Your task to perform on an android device: Search for the best value 4K TV on Best Buy Image 0: 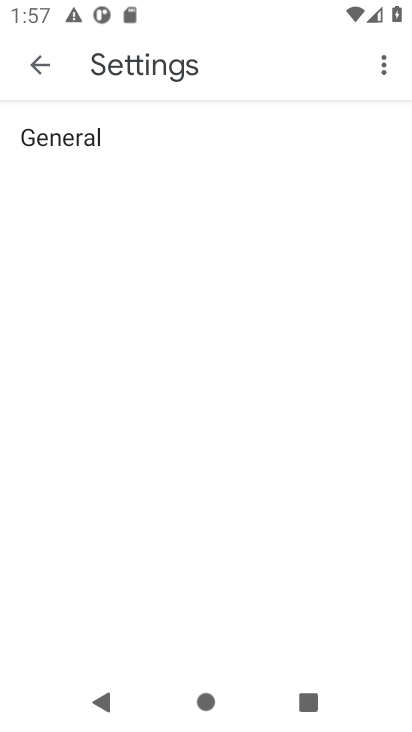
Step 0: press home button
Your task to perform on an android device: Search for the best value 4K TV on Best Buy Image 1: 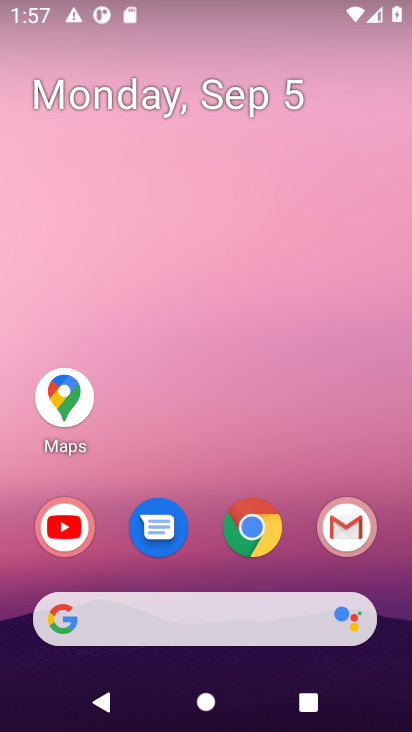
Step 1: click (264, 523)
Your task to perform on an android device: Search for the best value 4K TV on Best Buy Image 2: 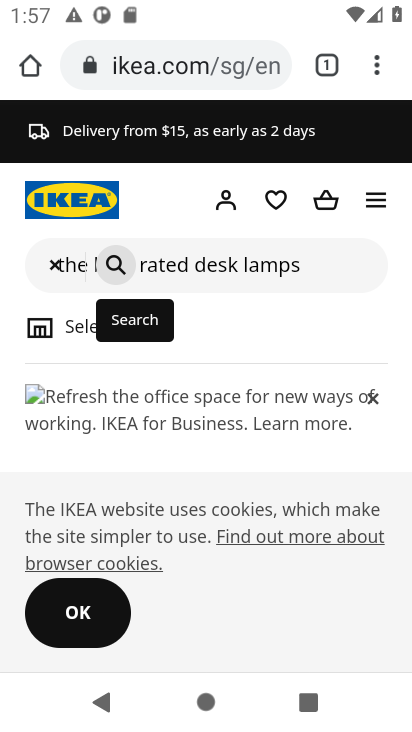
Step 2: click (182, 64)
Your task to perform on an android device: Search for the best value 4K TV on Best Buy Image 3: 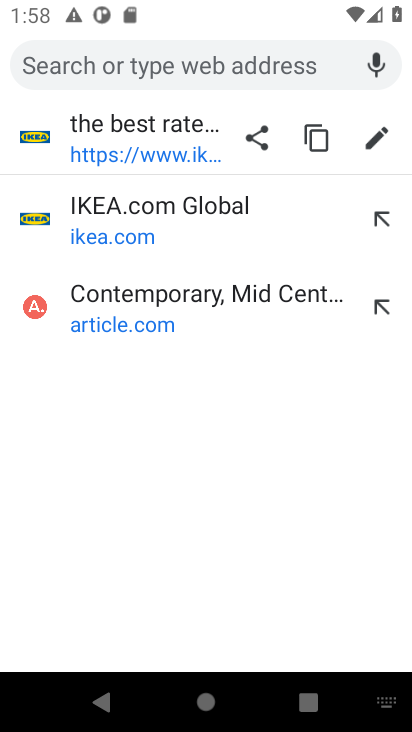
Step 3: type "Best Buy"
Your task to perform on an android device: Search for the best value 4K TV on Best Buy Image 4: 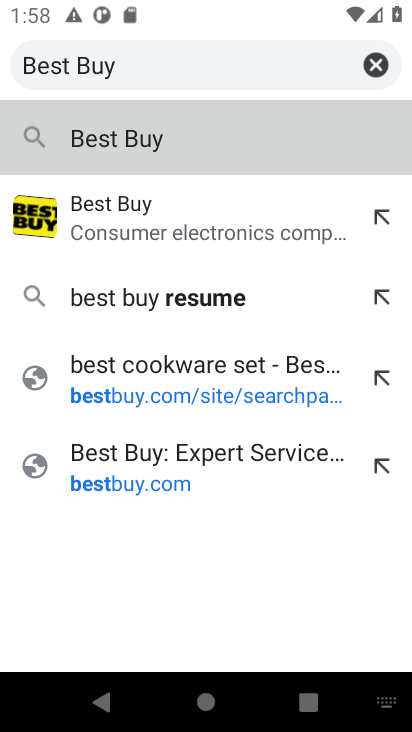
Step 4: click (132, 221)
Your task to perform on an android device: Search for the best value 4K TV on Best Buy Image 5: 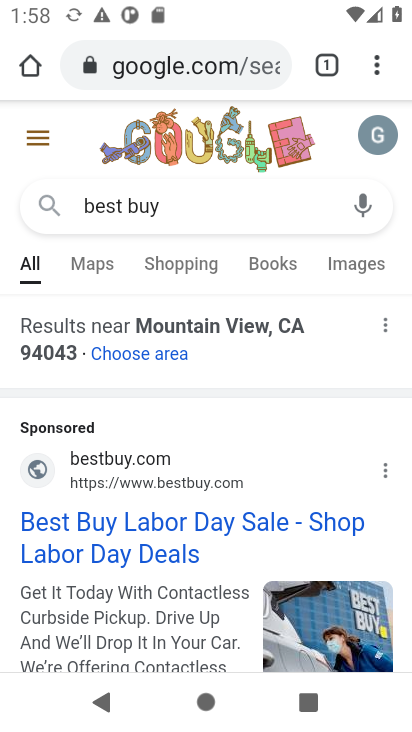
Step 5: click (170, 542)
Your task to perform on an android device: Search for the best value 4K TV on Best Buy Image 6: 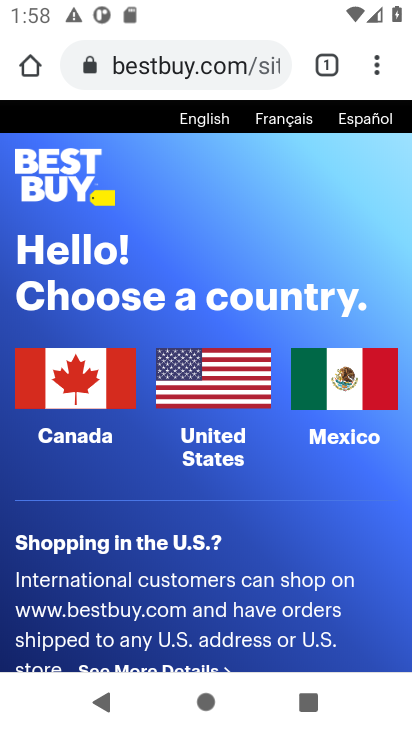
Step 6: click (204, 362)
Your task to perform on an android device: Search for the best value 4K TV on Best Buy Image 7: 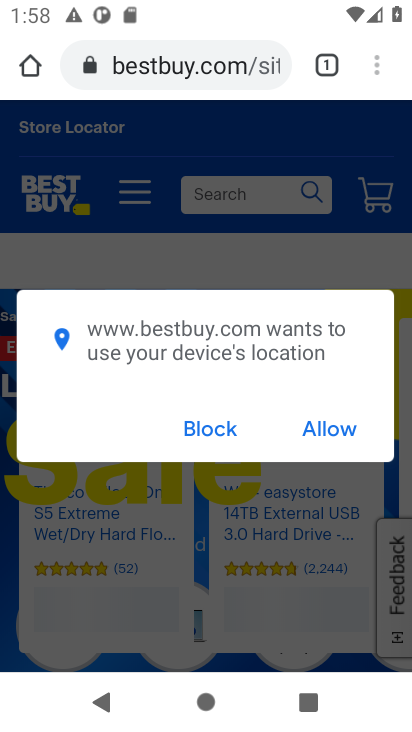
Step 7: click (208, 418)
Your task to perform on an android device: Search for the best value 4K TV on Best Buy Image 8: 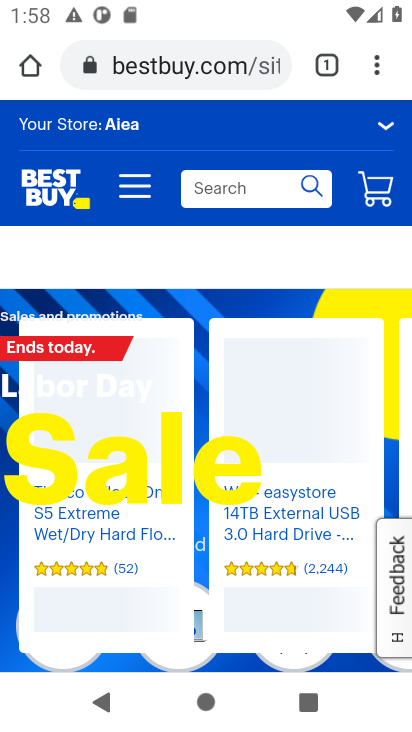
Step 8: click (214, 197)
Your task to perform on an android device: Search for the best value 4K TV on Best Buy Image 9: 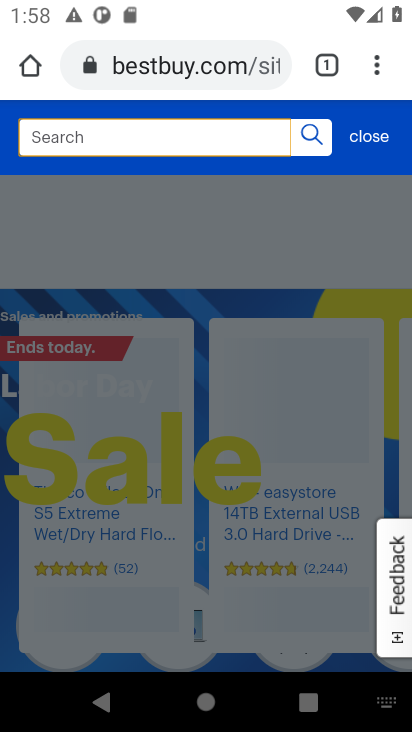
Step 9: type "the best value 4K TV"
Your task to perform on an android device: Search for the best value 4K TV on Best Buy Image 10: 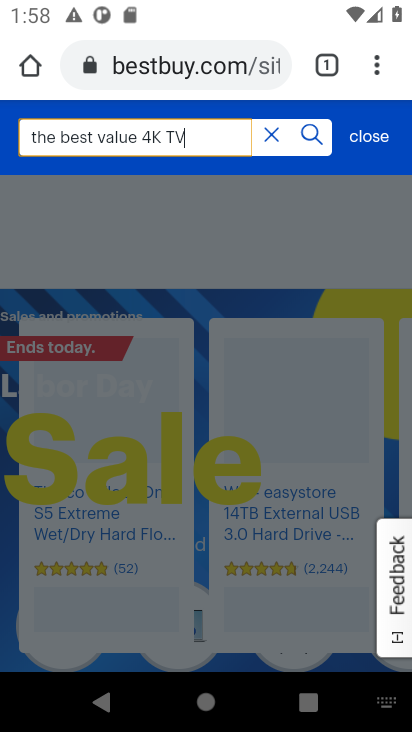
Step 10: click (311, 135)
Your task to perform on an android device: Search for the best value 4K TV on Best Buy Image 11: 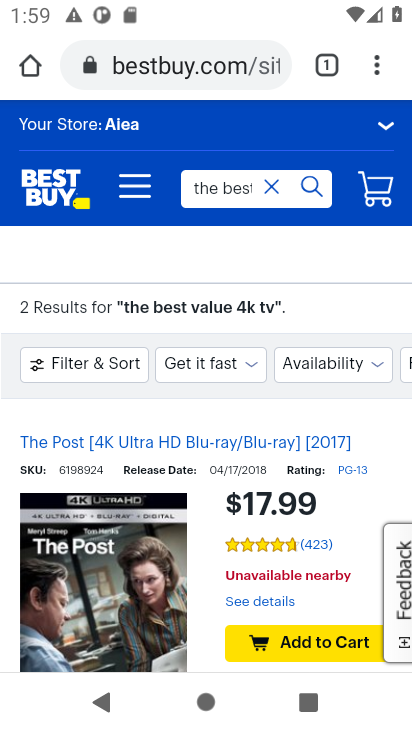
Step 11: click (309, 194)
Your task to perform on an android device: Search for the best value 4K TV on Best Buy Image 12: 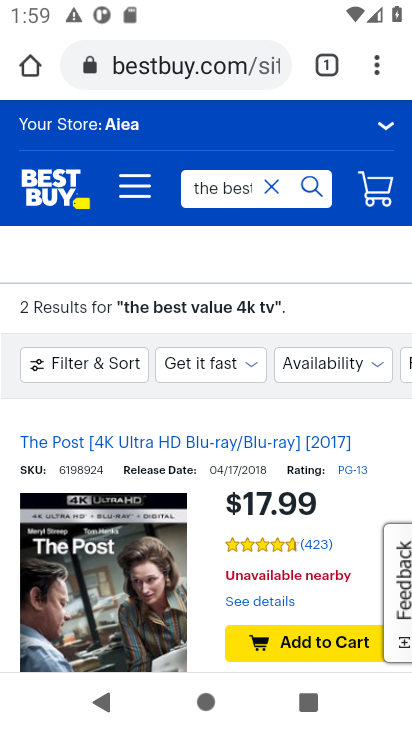
Step 12: task complete